Your task to perform on an android device: turn off wifi Image 0: 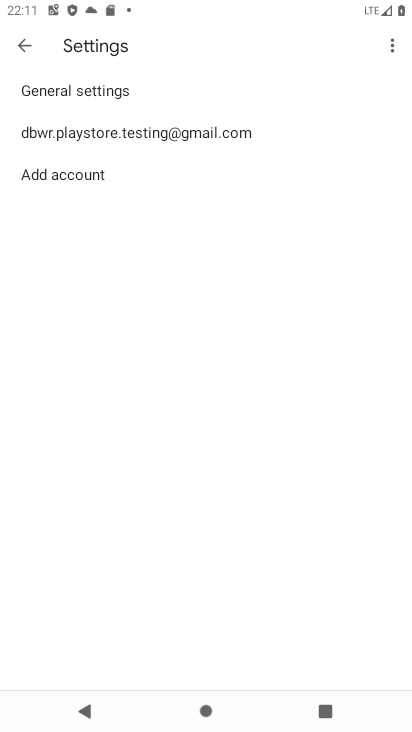
Step 0: press home button
Your task to perform on an android device: turn off wifi Image 1: 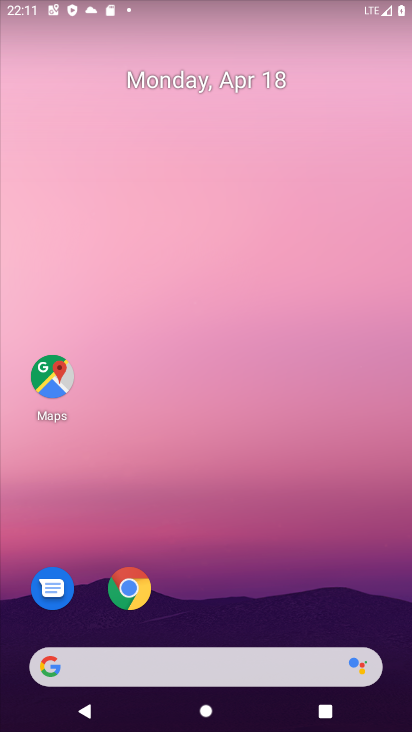
Step 1: drag from (262, 564) to (227, 98)
Your task to perform on an android device: turn off wifi Image 2: 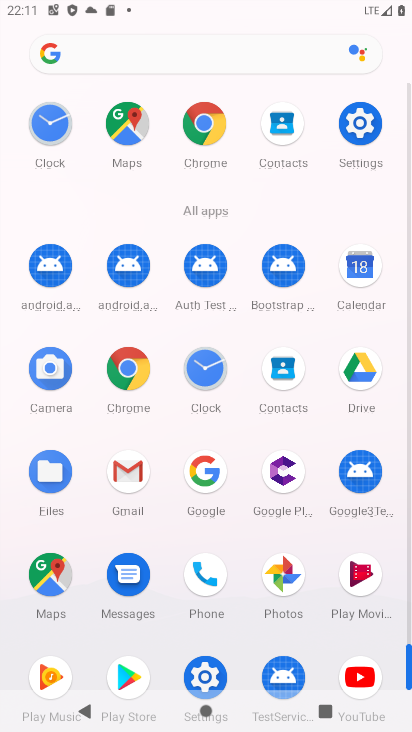
Step 2: click (201, 677)
Your task to perform on an android device: turn off wifi Image 3: 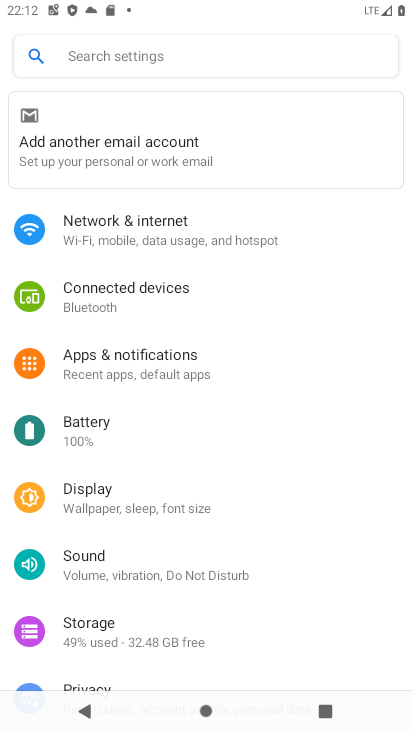
Step 3: click (103, 215)
Your task to perform on an android device: turn off wifi Image 4: 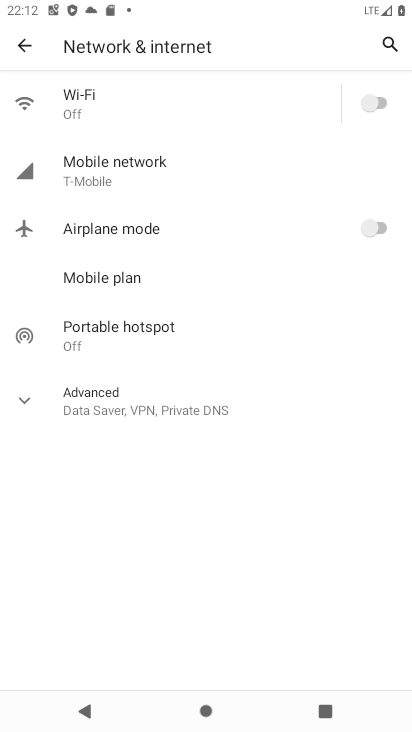
Step 4: task complete